Your task to perform on an android device: turn off translation in the chrome app Image 0: 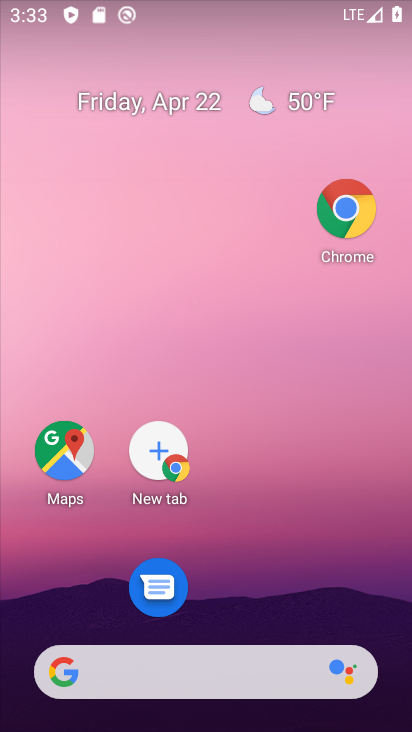
Step 0: click (345, 225)
Your task to perform on an android device: turn off translation in the chrome app Image 1: 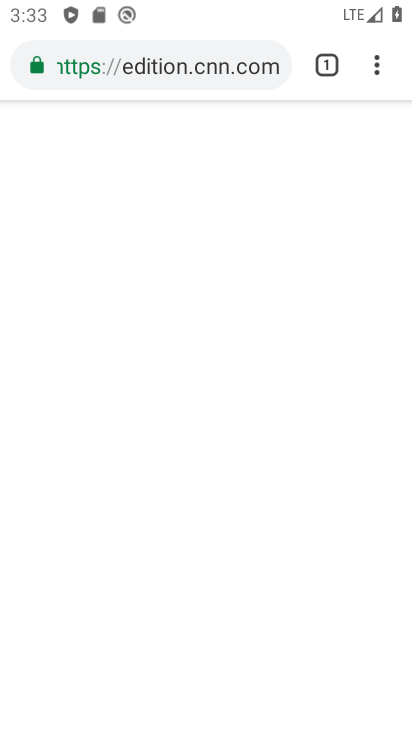
Step 1: click (379, 76)
Your task to perform on an android device: turn off translation in the chrome app Image 2: 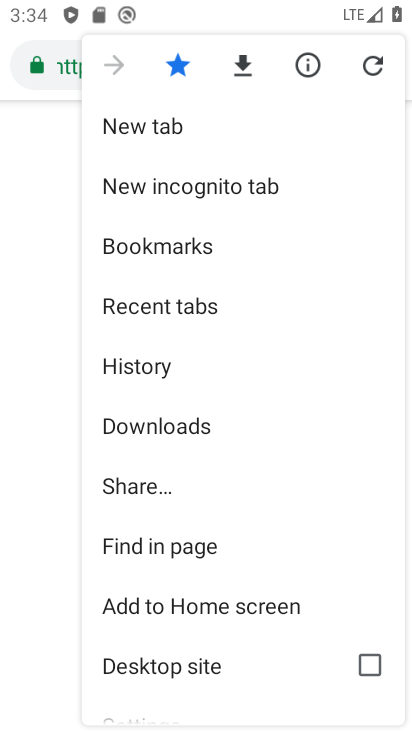
Step 2: drag from (171, 663) to (187, 197)
Your task to perform on an android device: turn off translation in the chrome app Image 3: 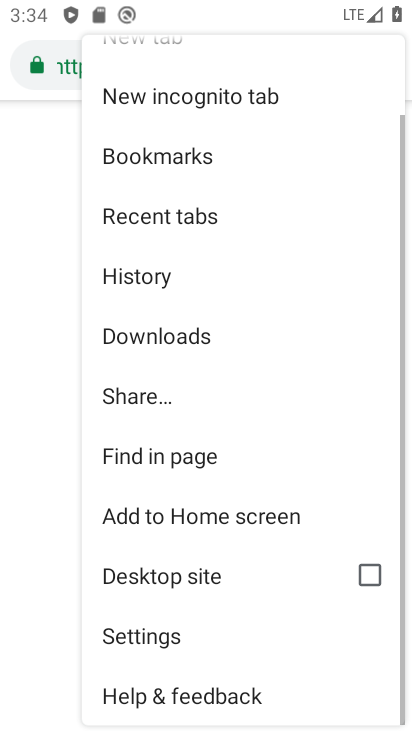
Step 3: drag from (159, 678) to (168, 152)
Your task to perform on an android device: turn off translation in the chrome app Image 4: 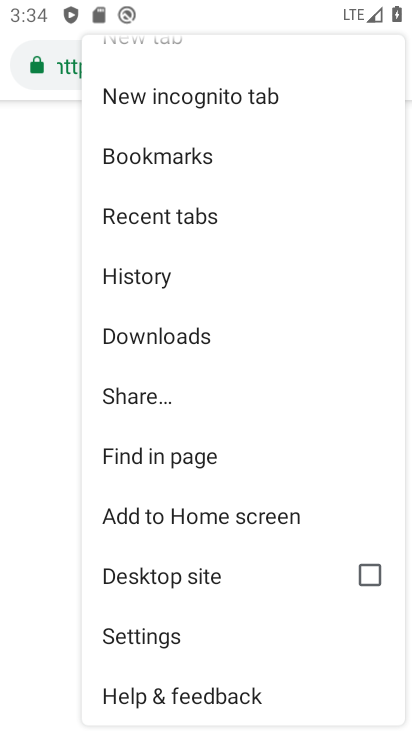
Step 4: click (162, 636)
Your task to perform on an android device: turn off translation in the chrome app Image 5: 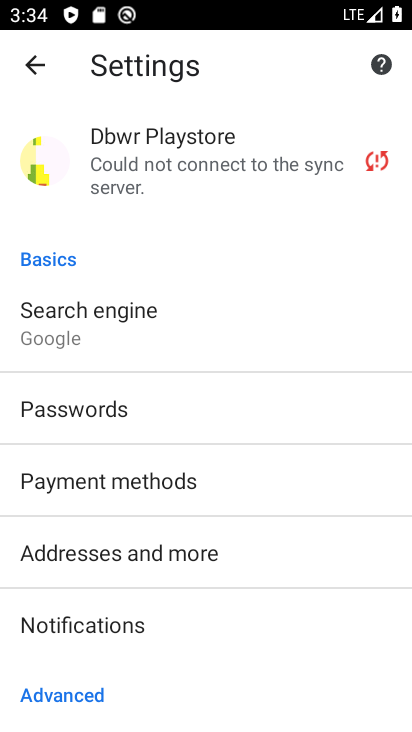
Step 5: drag from (70, 643) to (140, 208)
Your task to perform on an android device: turn off translation in the chrome app Image 6: 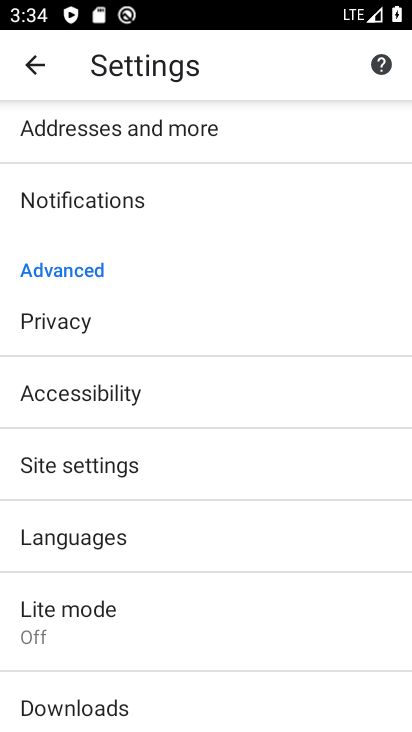
Step 6: click (106, 539)
Your task to perform on an android device: turn off translation in the chrome app Image 7: 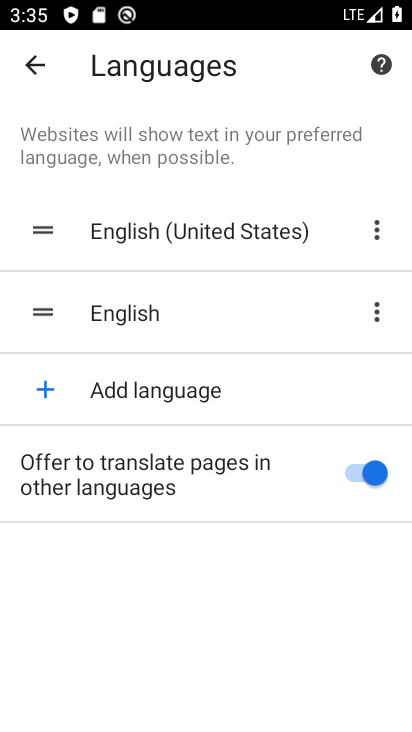
Step 7: click (376, 478)
Your task to perform on an android device: turn off translation in the chrome app Image 8: 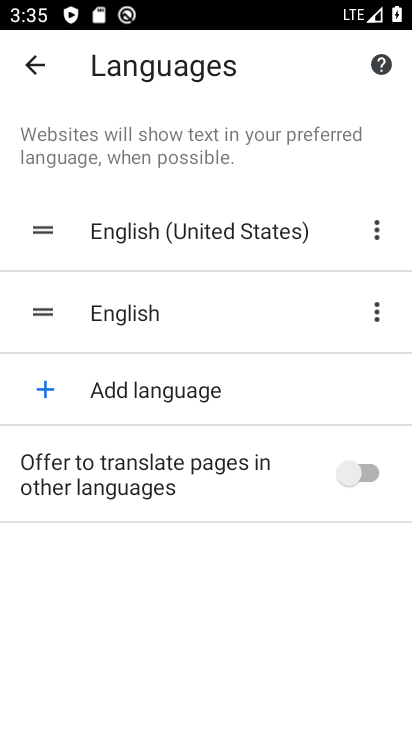
Step 8: task complete